Your task to perform on an android device: add a contact Image 0: 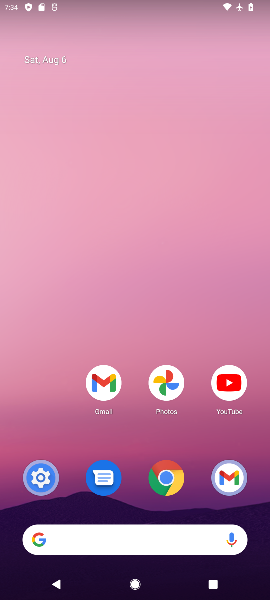
Step 0: press home button
Your task to perform on an android device: add a contact Image 1: 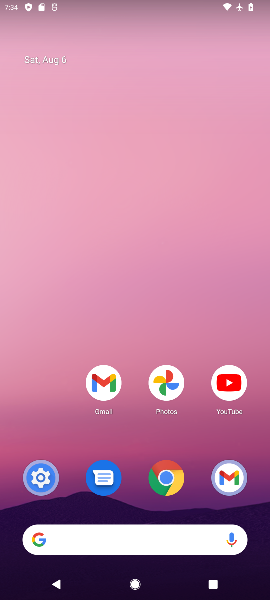
Step 1: drag from (60, 428) to (45, 45)
Your task to perform on an android device: add a contact Image 2: 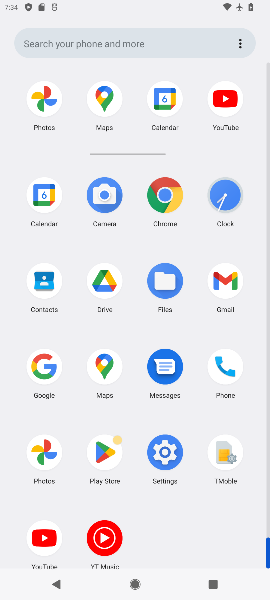
Step 2: click (52, 276)
Your task to perform on an android device: add a contact Image 3: 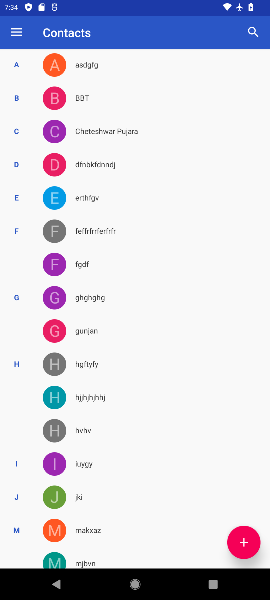
Step 3: click (249, 539)
Your task to perform on an android device: add a contact Image 4: 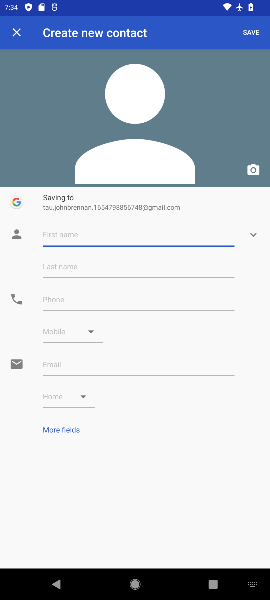
Step 4: type "hghgghhghghh"
Your task to perform on an android device: add a contact Image 5: 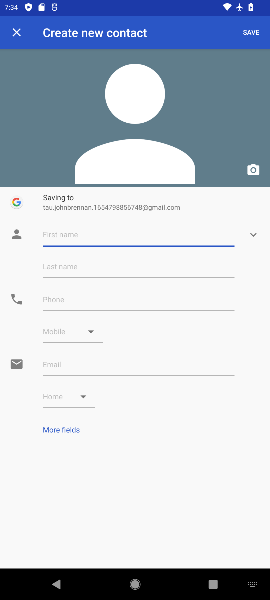
Step 5: click (93, 237)
Your task to perform on an android device: add a contact Image 6: 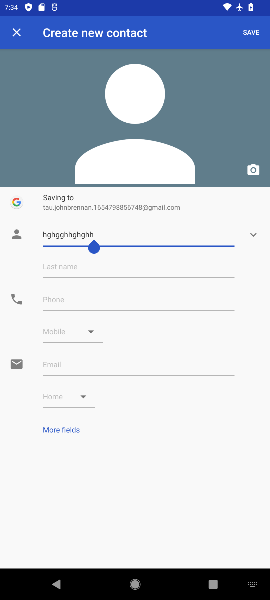
Step 6: click (90, 302)
Your task to perform on an android device: add a contact Image 7: 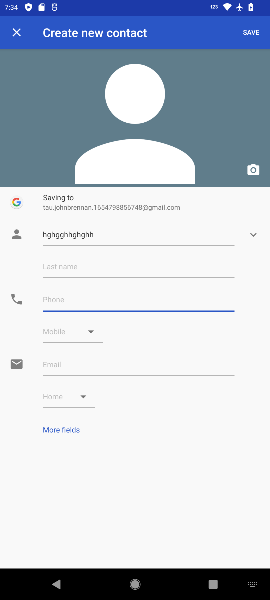
Step 7: type "767676666666"
Your task to perform on an android device: add a contact Image 8: 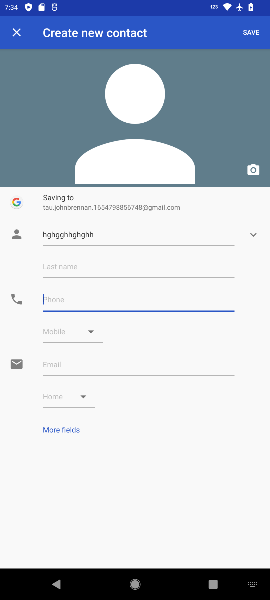
Step 8: click (93, 297)
Your task to perform on an android device: add a contact Image 9: 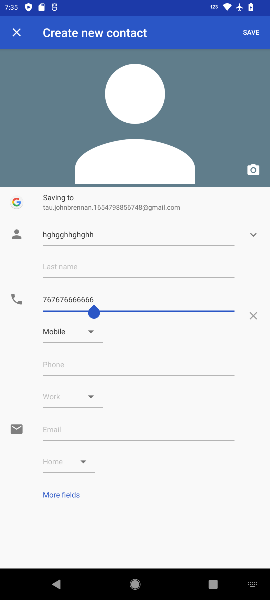
Step 9: click (249, 26)
Your task to perform on an android device: add a contact Image 10: 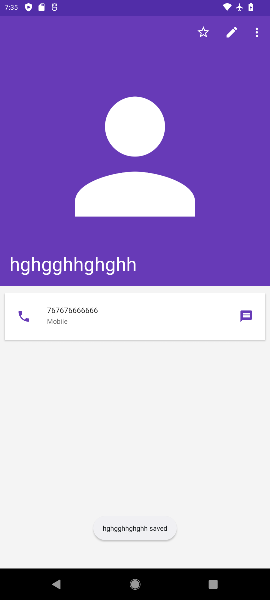
Step 10: task complete